Your task to perform on an android device: uninstall "Life360: Find Family & Friends" Image 0: 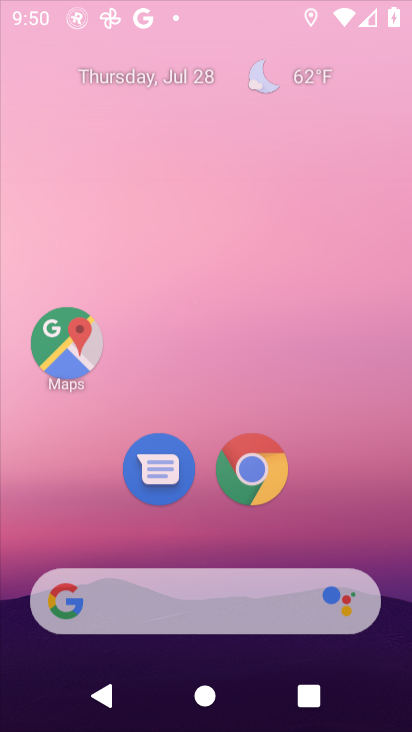
Step 0: press back button
Your task to perform on an android device: uninstall "Life360: Find Family & Friends" Image 1: 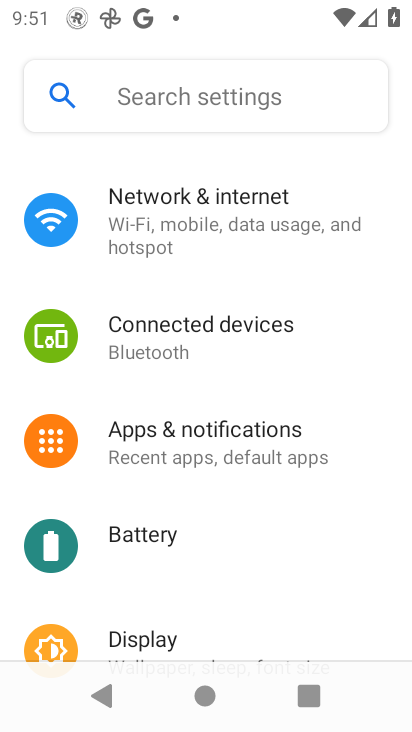
Step 1: click (153, 120)
Your task to perform on an android device: uninstall "Life360: Find Family & Friends" Image 2: 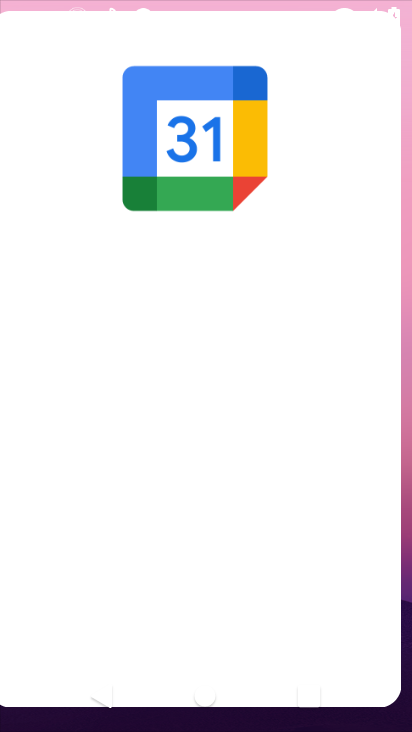
Step 2: drag from (254, 624) to (210, 197)
Your task to perform on an android device: uninstall "Life360: Find Family & Friends" Image 3: 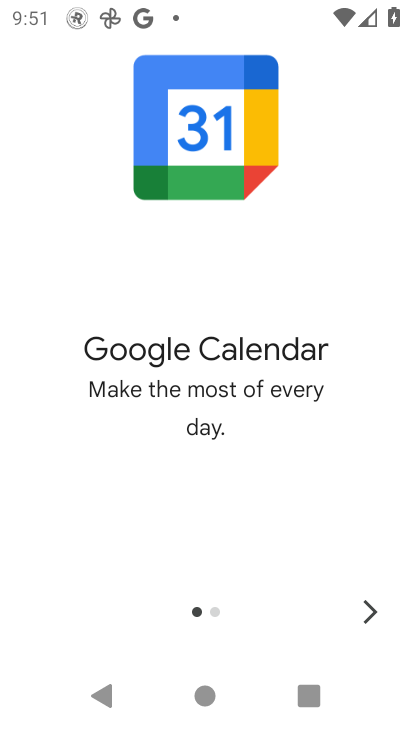
Step 3: press back button
Your task to perform on an android device: uninstall "Life360: Find Family & Friends" Image 4: 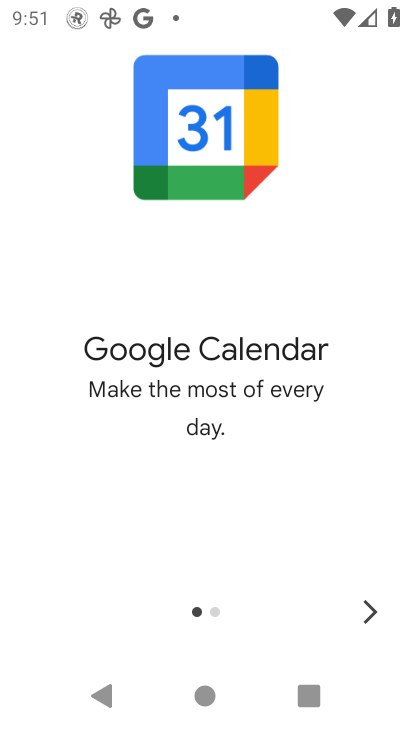
Step 4: press back button
Your task to perform on an android device: uninstall "Life360: Find Family & Friends" Image 5: 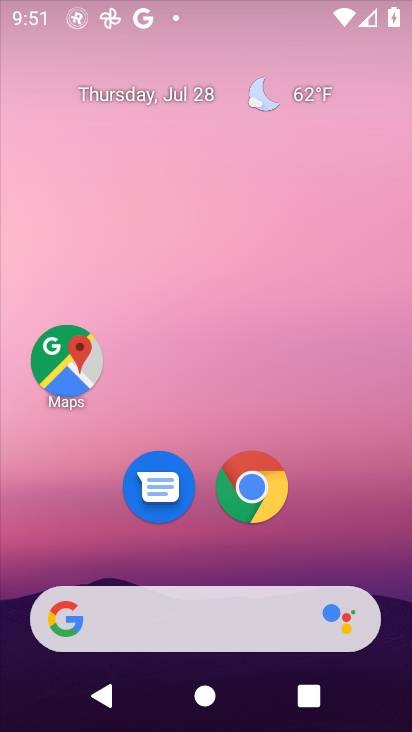
Step 5: click (373, 606)
Your task to perform on an android device: uninstall "Life360: Find Family & Friends" Image 6: 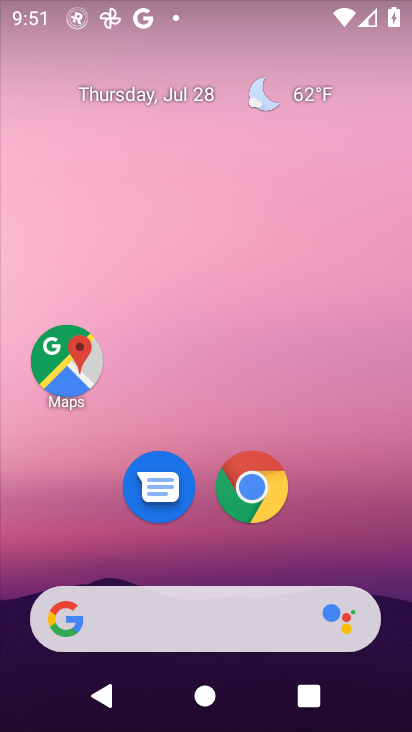
Step 6: drag from (340, 580) to (289, 232)
Your task to perform on an android device: uninstall "Life360: Find Family & Friends" Image 7: 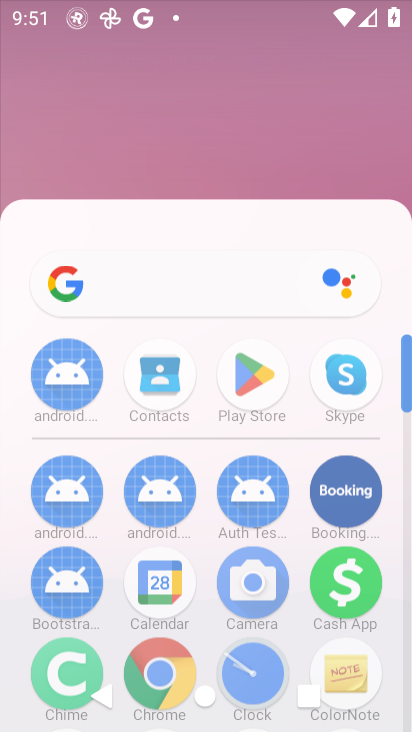
Step 7: drag from (263, 518) to (263, 168)
Your task to perform on an android device: uninstall "Life360: Find Family & Friends" Image 8: 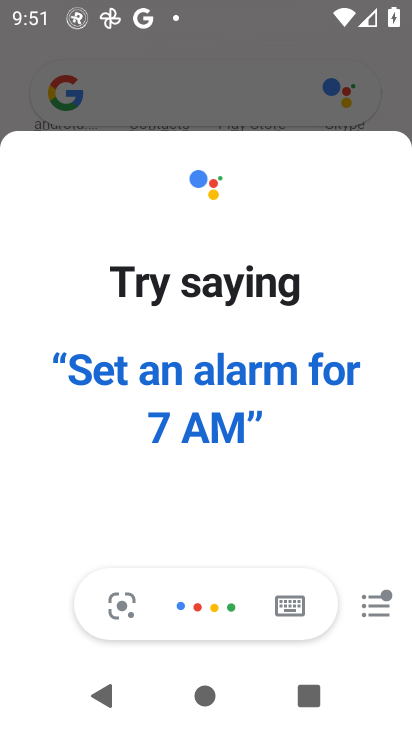
Step 8: click (253, 104)
Your task to perform on an android device: uninstall "Life360: Find Family & Friends" Image 9: 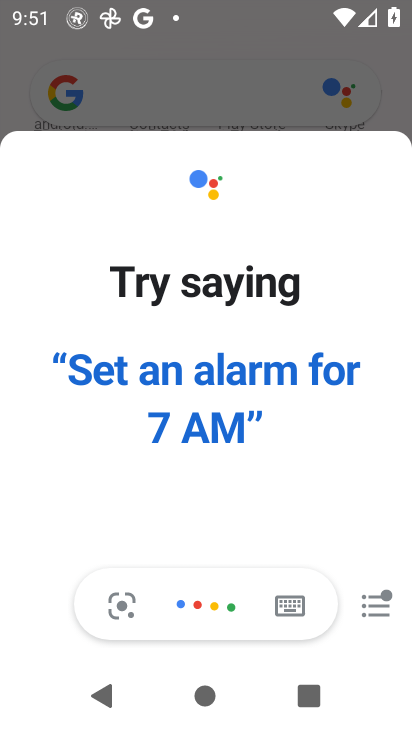
Step 9: click (253, 104)
Your task to perform on an android device: uninstall "Life360: Find Family & Friends" Image 10: 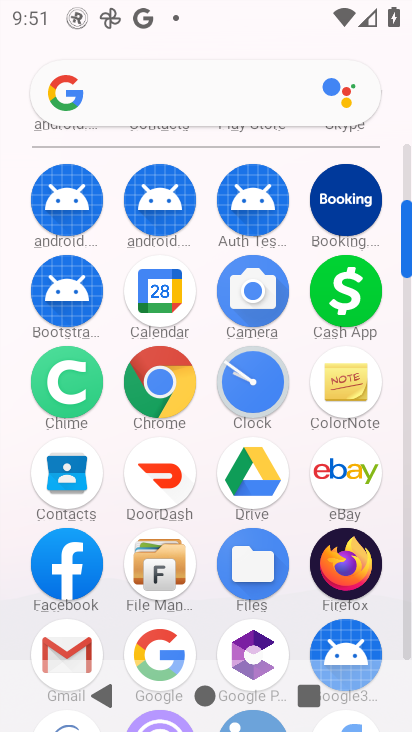
Step 10: drag from (195, 260) to (202, 580)
Your task to perform on an android device: uninstall "Life360: Find Family & Friends" Image 11: 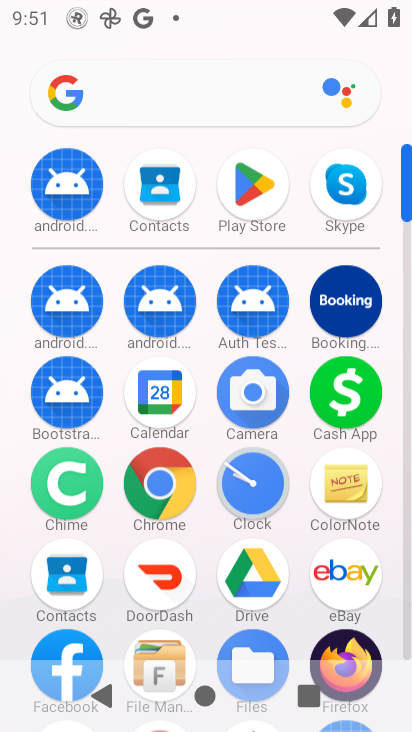
Step 11: drag from (224, 279) to (214, 615)
Your task to perform on an android device: uninstall "Life360: Find Family & Friends" Image 12: 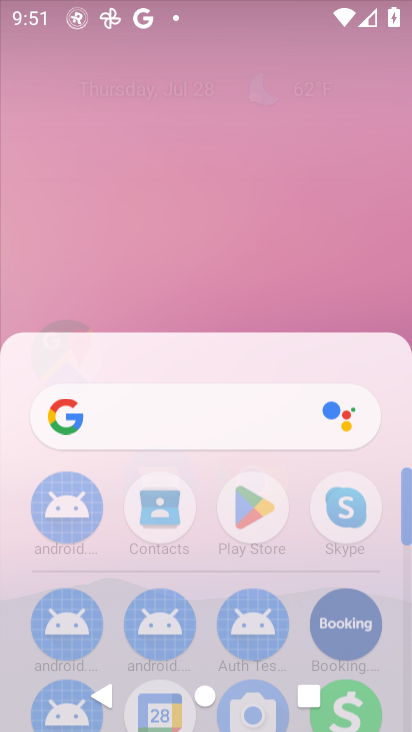
Step 12: drag from (211, 312) to (213, 623)
Your task to perform on an android device: uninstall "Life360: Find Family & Friends" Image 13: 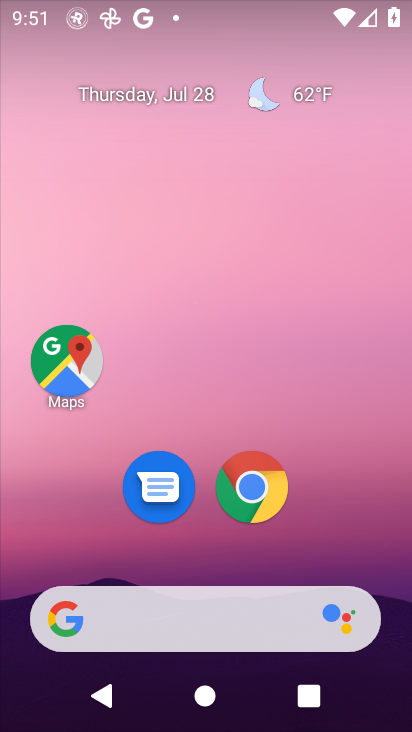
Step 13: drag from (244, 634) to (183, 144)
Your task to perform on an android device: uninstall "Life360: Find Family & Friends" Image 14: 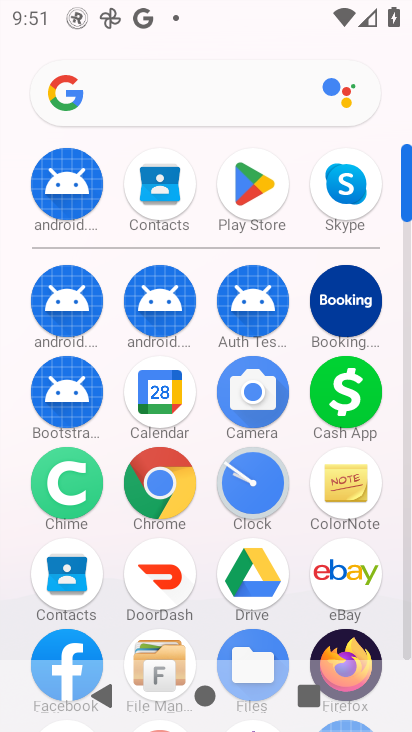
Step 14: click (178, 51)
Your task to perform on an android device: uninstall "Life360: Find Family & Friends" Image 15: 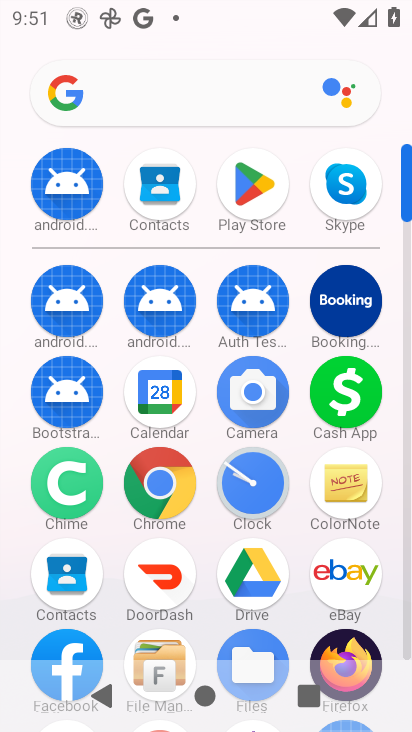
Step 15: click (247, 172)
Your task to perform on an android device: uninstall "Life360: Find Family & Friends" Image 16: 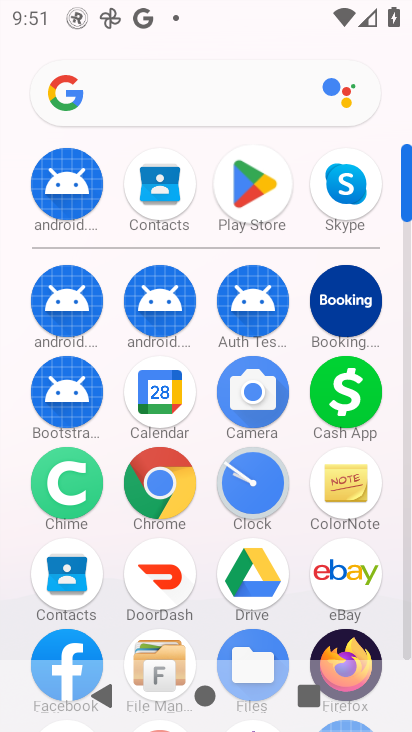
Step 16: click (248, 174)
Your task to perform on an android device: uninstall "Life360: Find Family & Friends" Image 17: 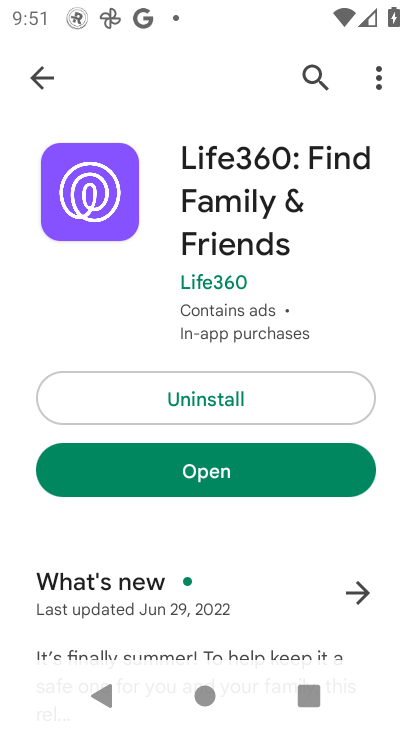
Step 17: click (196, 402)
Your task to perform on an android device: uninstall "Life360: Find Family & Friends" Image 18: 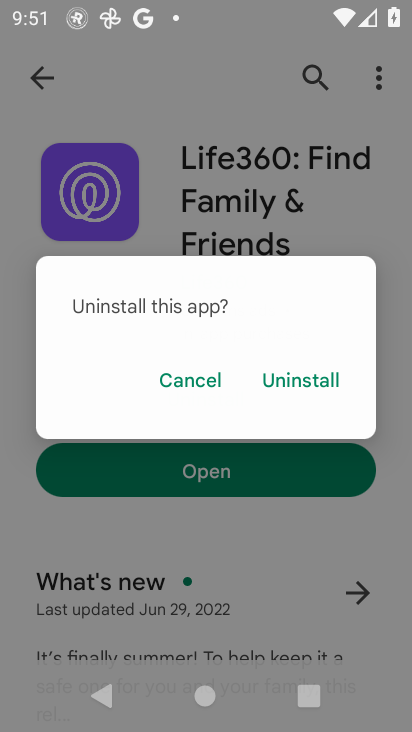
Step 18: click (198, 401)
Your task to perform on an android device: uninstall "Life360: Find Family & Friends" Image 19: 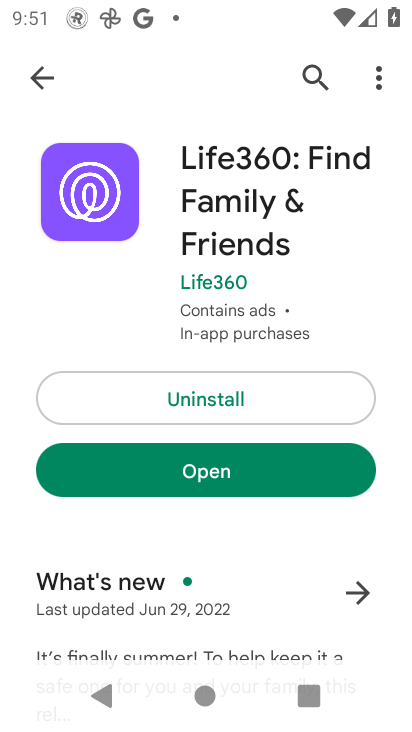
Step 19: click (233, 394)
Your task to perform on an android device: uninstall "Life360: Find Family & Friends" Image 20: 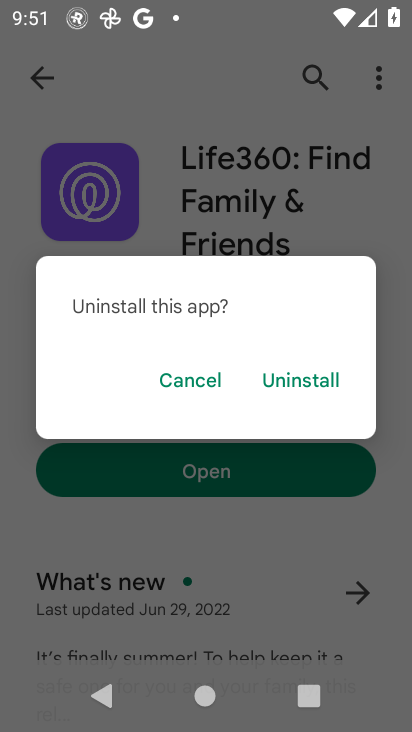
Step 20: click (292, 374)
Your task to perform on an android device: uninstall "Life360: Find Family & Friends" Image 21: 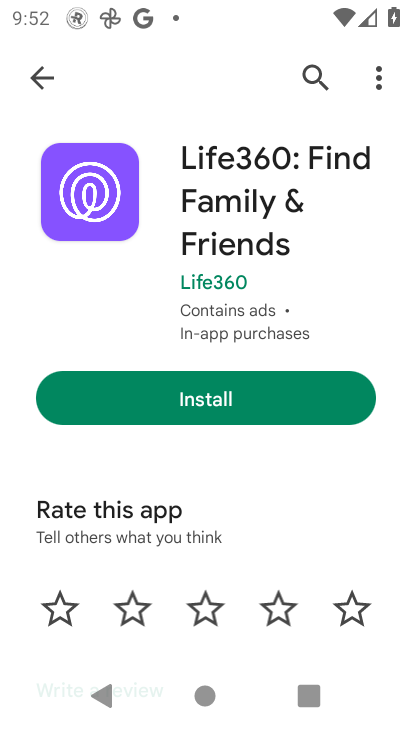
Step 21: task complete